Your task to perform on an android device: Open battery settings Image 0: 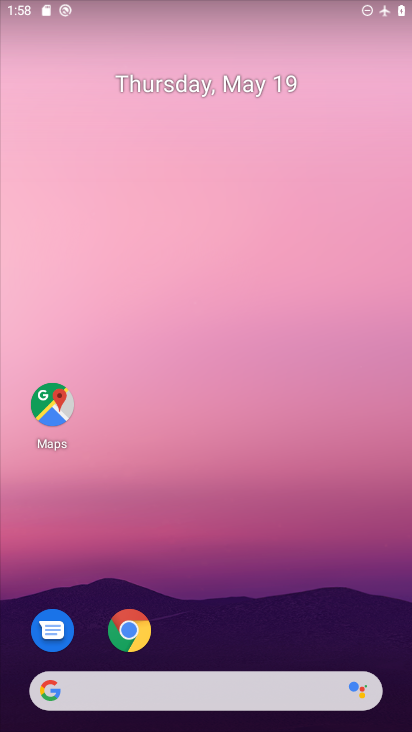
Step 0: drag from (191, 657) to (191, 51)
Your task to perform on an android device: Open battery settings Image 1: 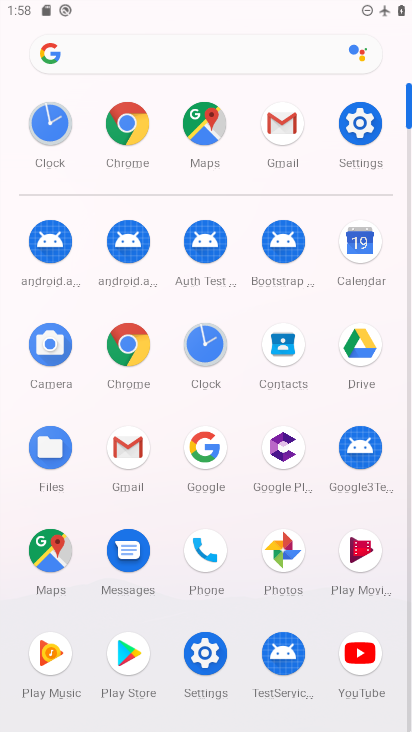
Step 1: click (349, 124)
Your task to perform on an android device: Open battery settings Image 2: 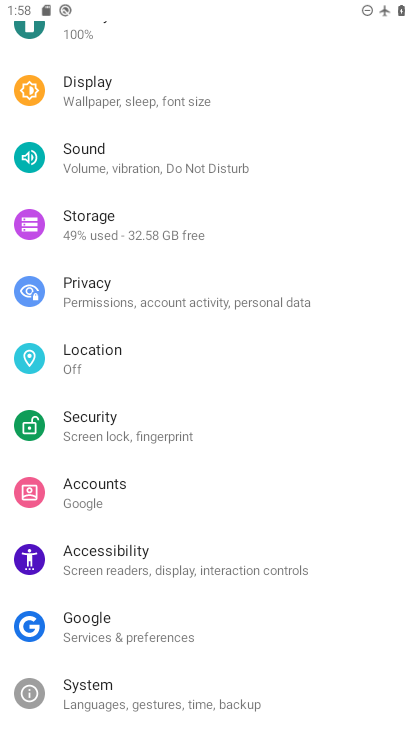
Step 2: drag from (90, 160) to (119, 568)
Your task to perform on an android device: Open battery settings Image 3: 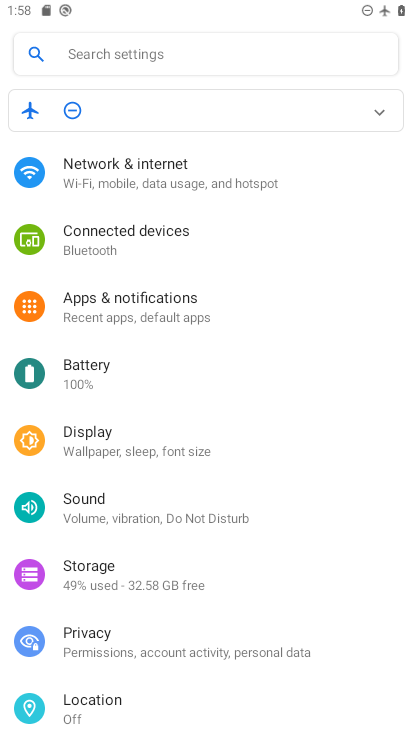
Step 3: click (103, 386)
Your task to perform on an android device: Open battery settings Image 4: 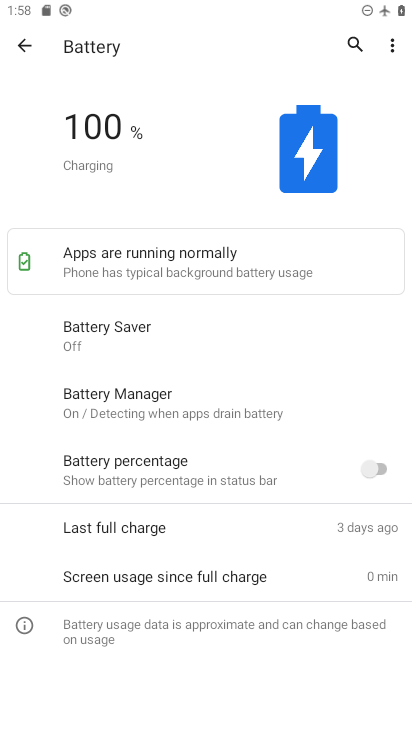
Step 4: task complete